Your task to perform on an android device: Do I have any events this weekend? Image 0: 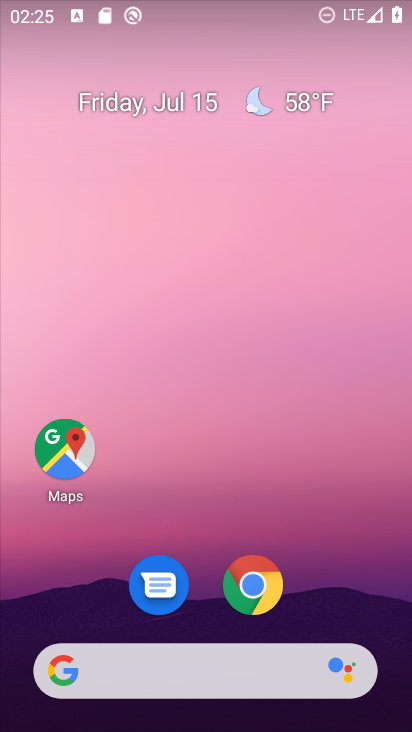
Step 0: drag from (220, 502) to (220, 13)
Your task to perform on an android device: Do I have any events this weekend? Image 1: 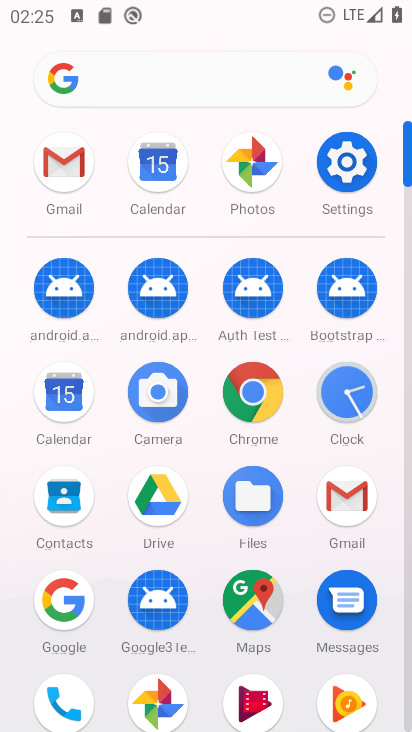
Step 1: click (171, 165)
Your task to perform on an android device: Do I have any events this weekend? Image 2: 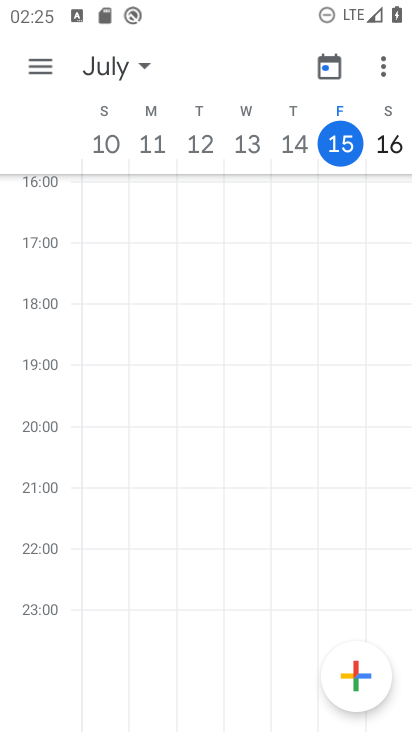
Step 2: task complete